Your task to perform on an android device: delete a single message in the gmail app Image 0: 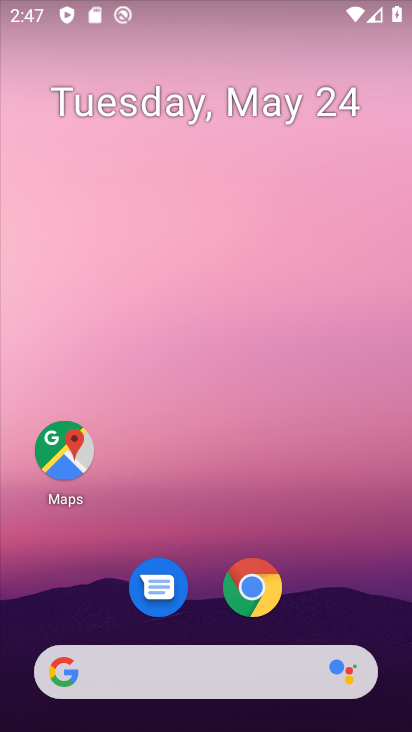
Step 0: drag from (194, 605) to (248, 352)
Your task to perform on an android device: delete a single message in the gmail app Image 1: 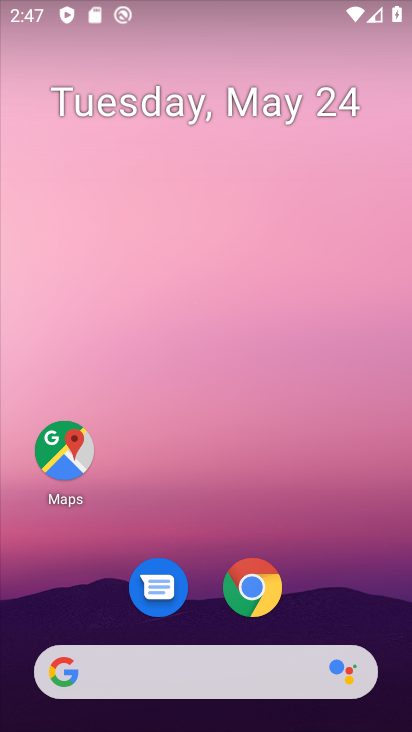
Step 1: drag from (208, 598) to (326, 269)
Your task to perform on an android device: delete a single message in the gmail app Image 2: 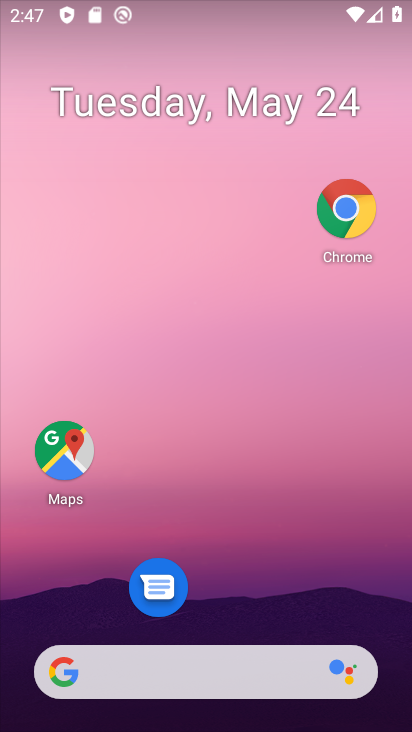
Step 2: drag from (218, 593) to (268, 281)
Your task to perform on an android device: delete a single message in the gmail app Image 3: 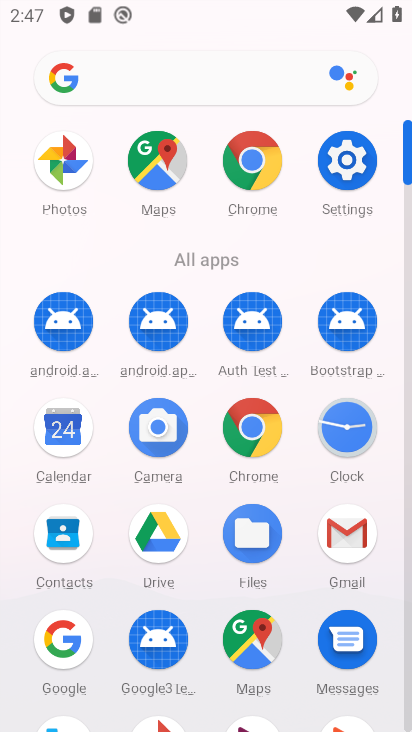
Step 3: click (359, 533)
Your task to perform on an android device: delete a single message in the gmail app Image 4: 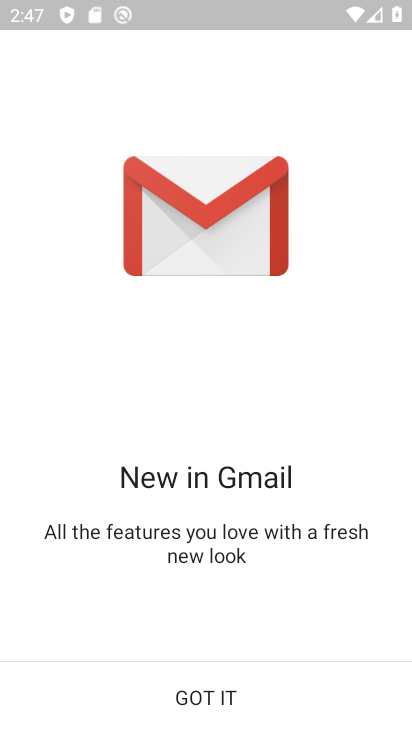
Step 4: click (225, 712)
Your task to perform on an android device: delete a single message in the gmail app Image 5: 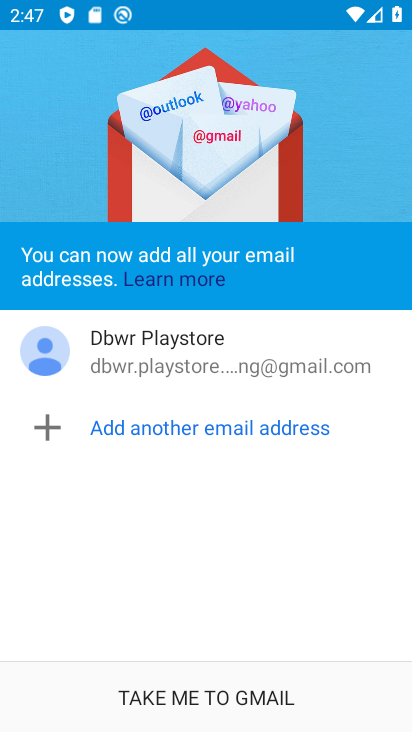
Step 5: click (177, 713)
Your task to perform on an android device: delete a single message in the gmail app Image 6: 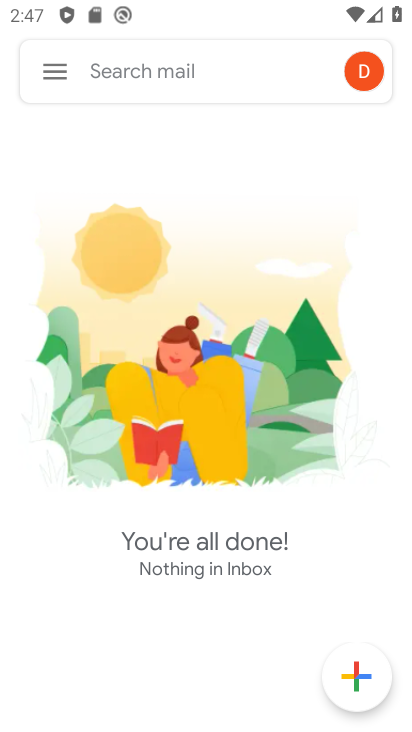
Step 6: click (64, 69)
Your task to perform on an android device: delete a single message in the gmail app Image 7: 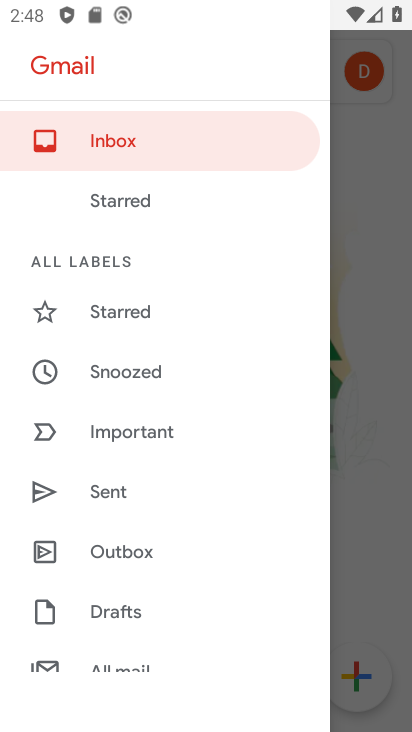
Step 7: click (124, 662)
Your task to perform on an android device: delete a single message in the gmail app Image 8: 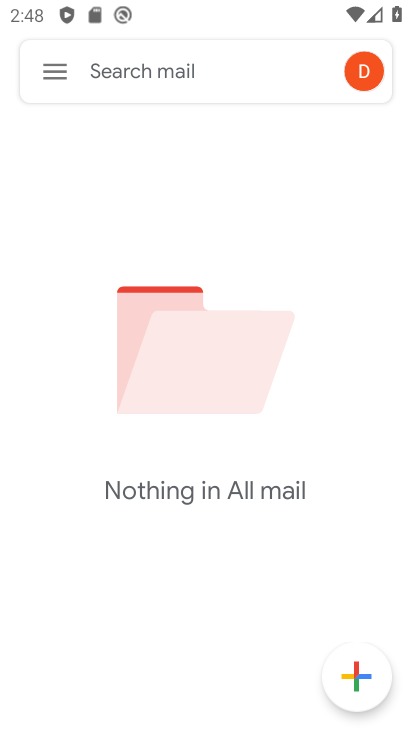
Step 8: task complete